Your task to perform on an android device: Open Android settings Image 0: 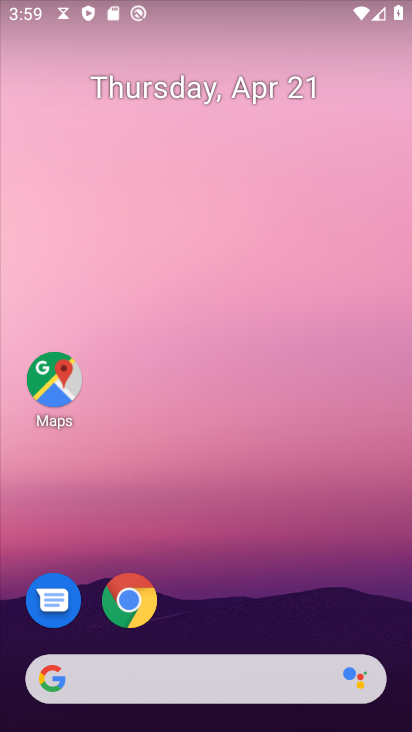
Step 0: drag from (214, 603) to (215, 61)
Your task to perform on an android device: Open Android settings Image 1: 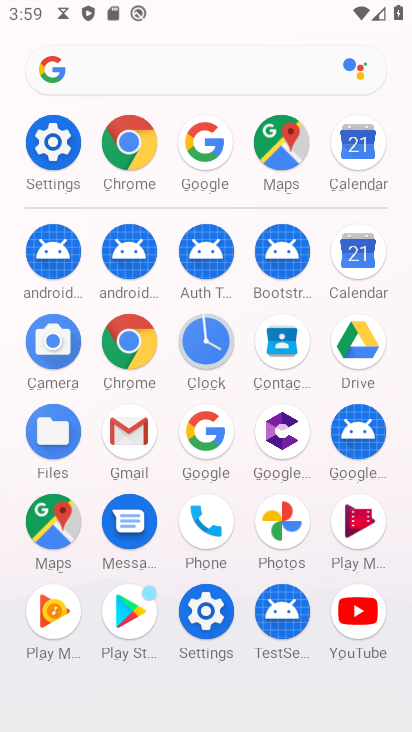
Step 1: click (207, 611)
Your task to perform on an android device: Open Android settings Image 2: 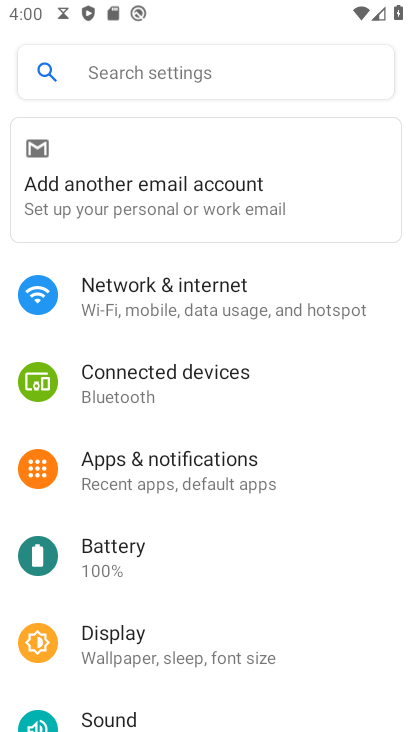
Step 2: task complete